Your task to perform on an android device: check out phone information Image 0: 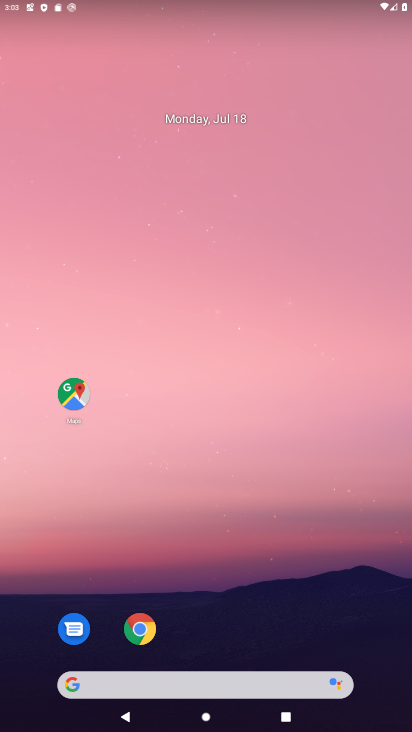
Step 0: drag from (215, 629) to (216, 229)
Your task to perform on an android device: check out phone information Image 1: 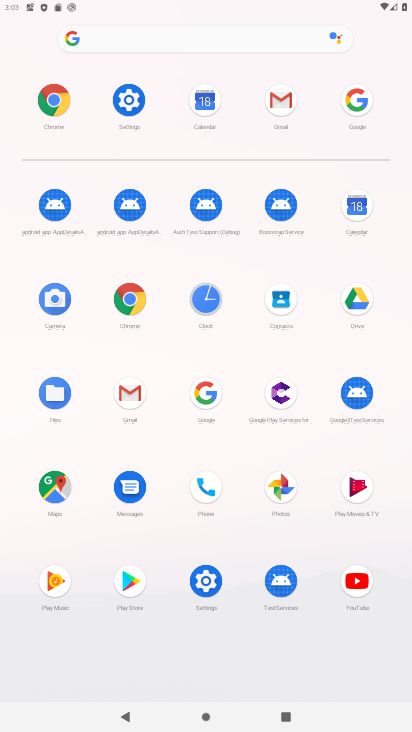
Step 1: click (116, 106)
Your task to perform on an android device: check out phone information Image 2: 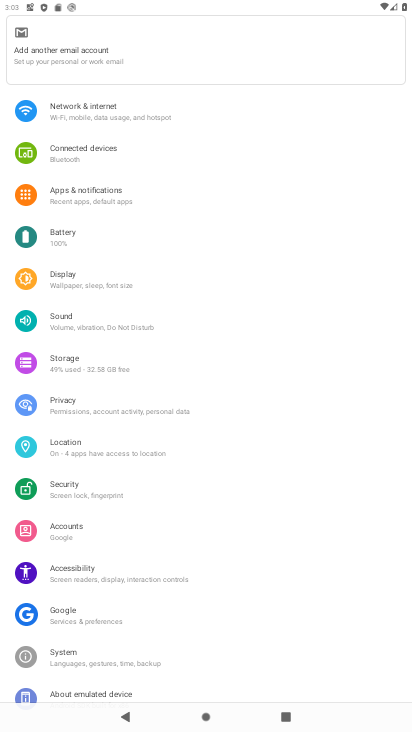
Step 2: drag from (150, 614) to (156, 121)
Your task to perform on an android device: check out phone information Image 3: 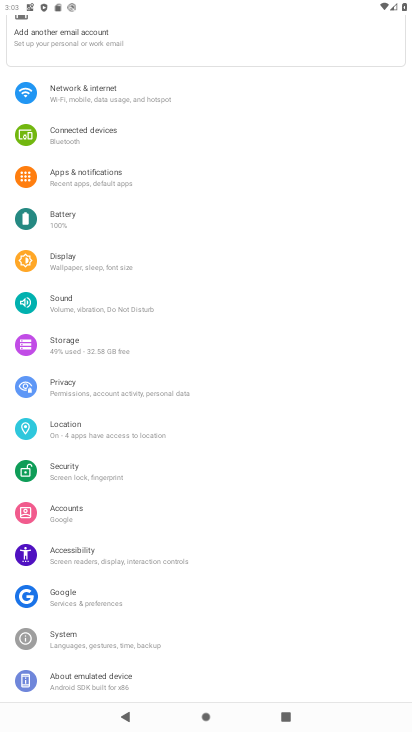
Step 3: click (78, 671)
Your task to perform on an android device: check out phone information Image 4: 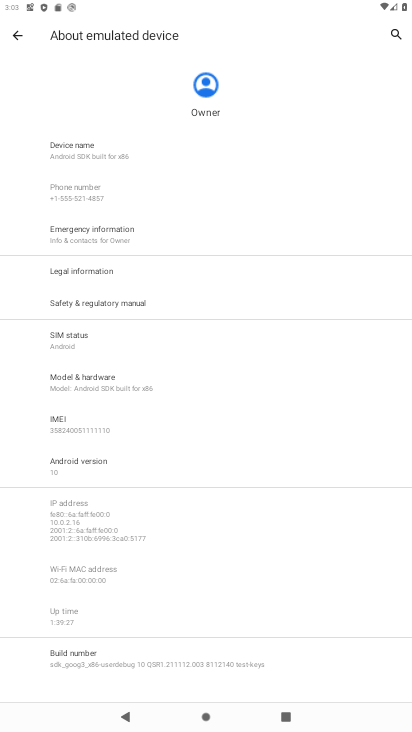
Step 4: task complete